Your task to perform on an android device: Open Google Chrome and open the bookmarks view Image 0: 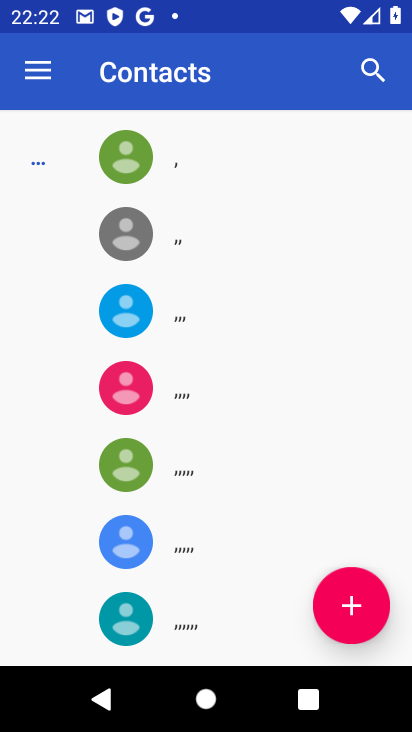
Step 0: press home button
Your task to perform on an android device: Open Google Chrome and open the bookmarks view Image 1: 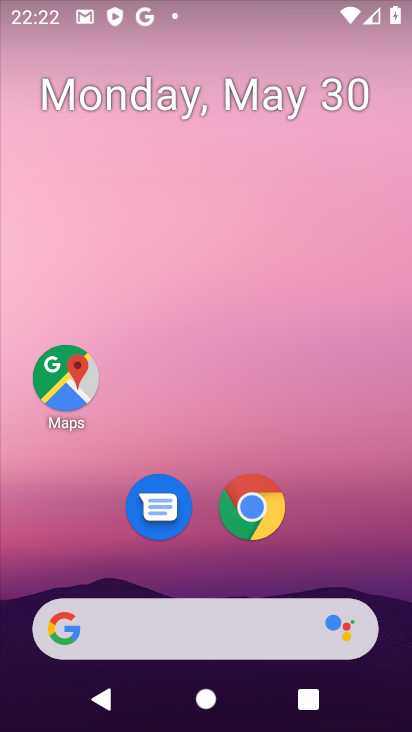
Step 1: drag from (365, 548) to (362, 254)
Your task to perform on an android device: Open Google Chrome and open the bookmarks view Image 2: 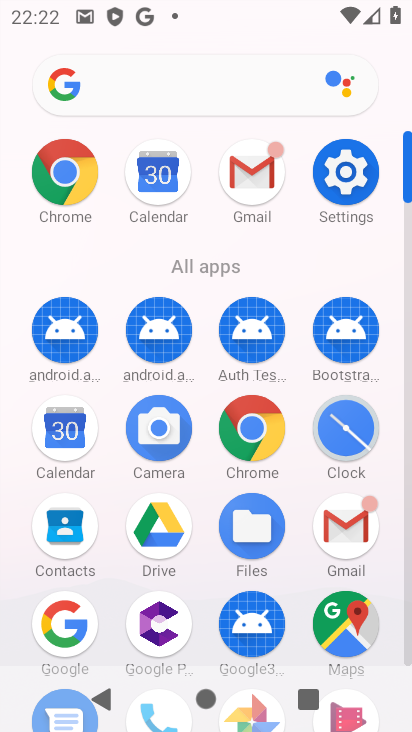
Step 2: click (279, 439)
Your task to perform on an android device: Open Google Chrome and open the bookmarks view Image 3: 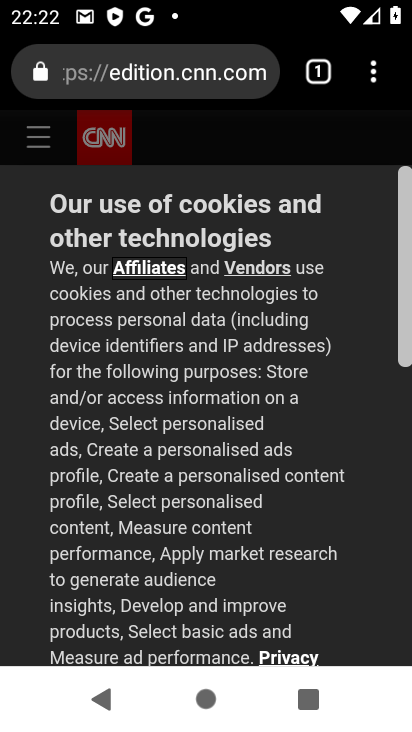
Step 3: click (247, 444)
Your task to perform on an android device: Open Google Chrome and open the bookmarks view Image 4: 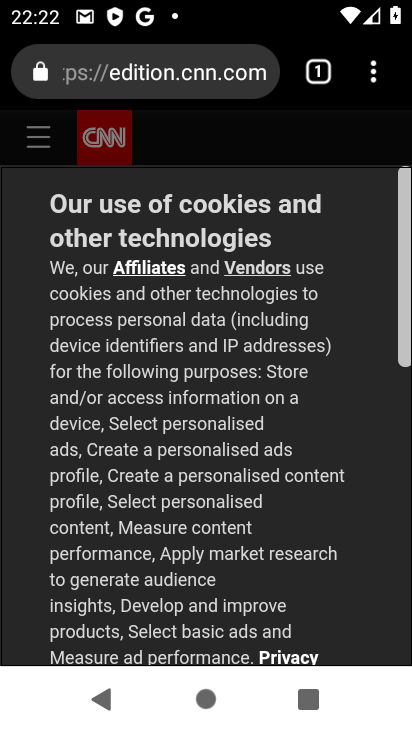
Step 4: click (372, 85)
Your task to perform on an android device: Open Google Chrome and open the bookmarks view Image 5: 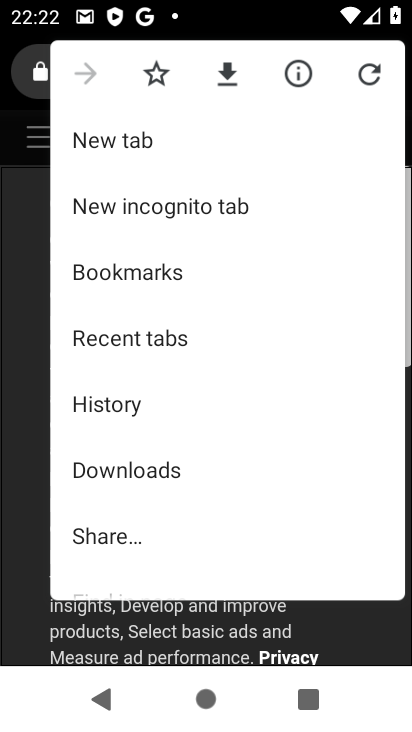
Step 5: click (190, 275)
Your task to perform on an android device: Open Google Chrome and open the bookmarks view Image 6: 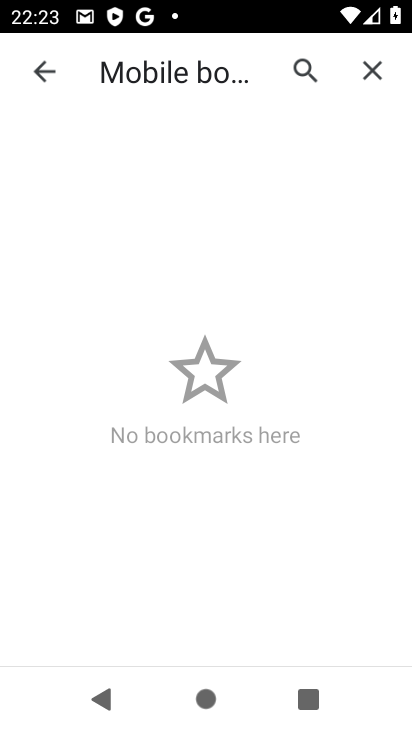
Step 6: task complete